Your task to perform on an android device: Go to network settings Image 0: 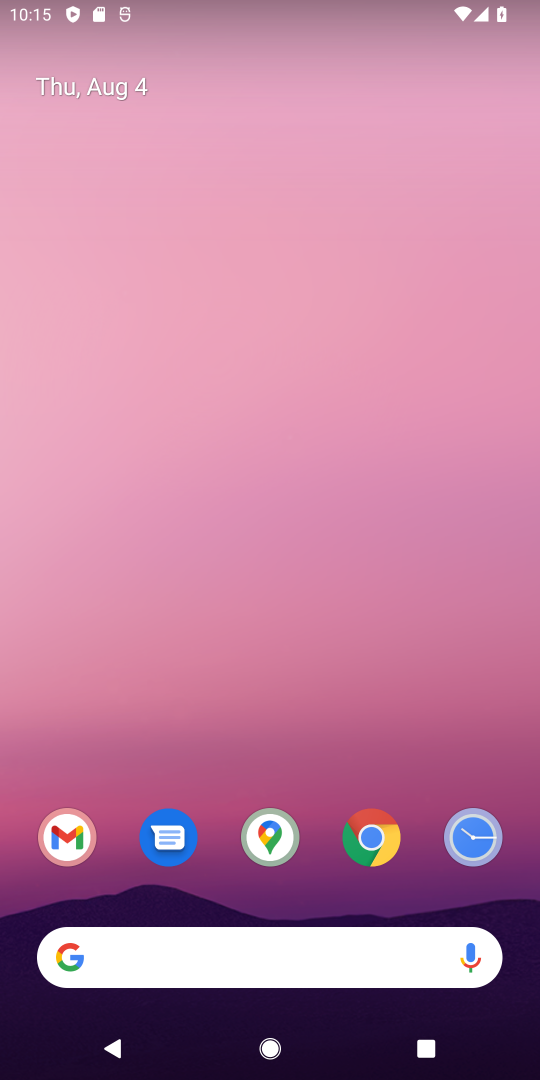
Step 0: drag from (413, 767) to (404, 172)
Your task to perform on an android device: Go to network settings Image 1: 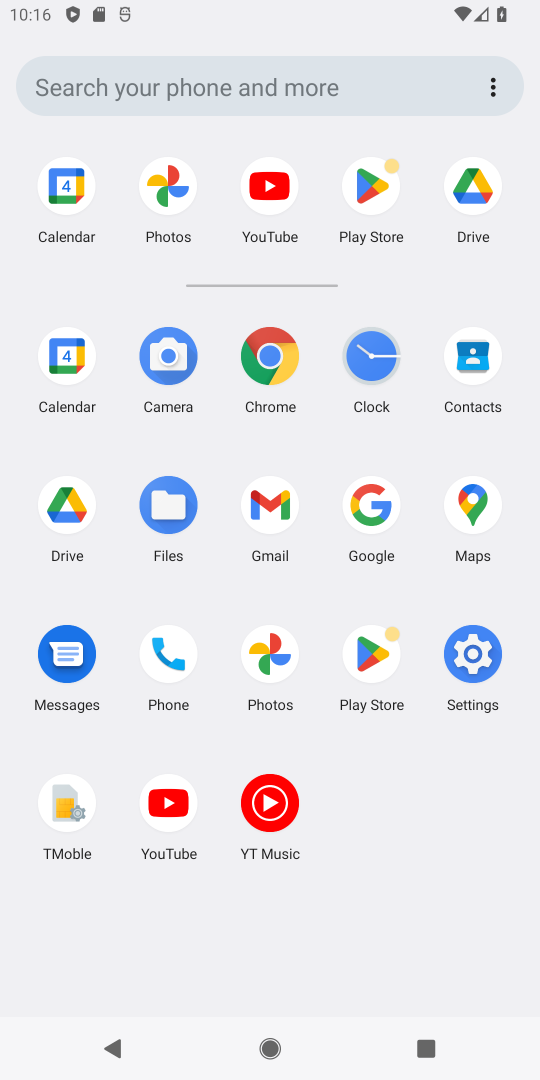
Step 1: click (468, 656)
Your task to perform on an android device: Go to network settings Image 2: 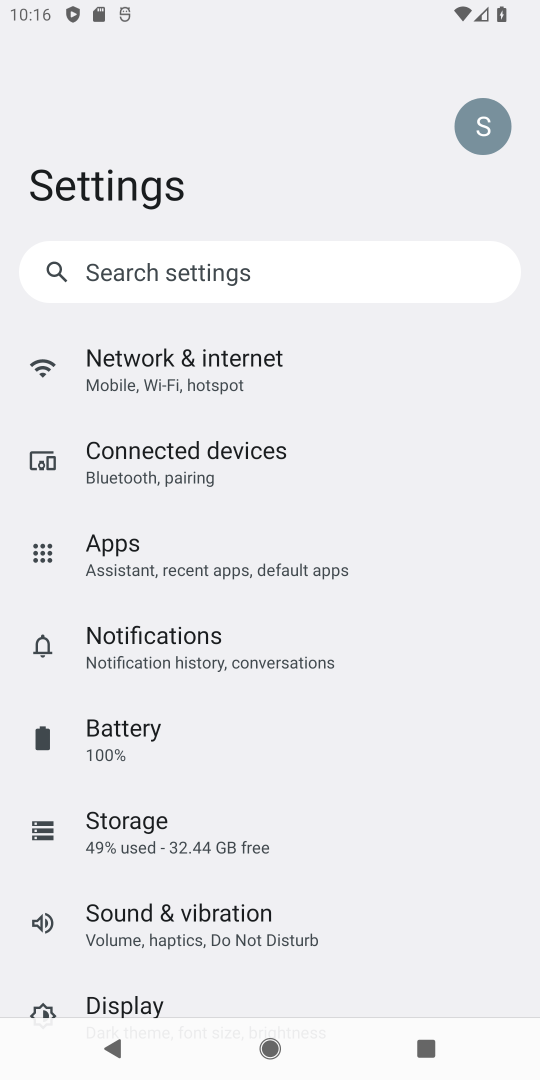
Step 2: click (160, 395)
Your task to perform on an android device: Go to network settings Image 3: 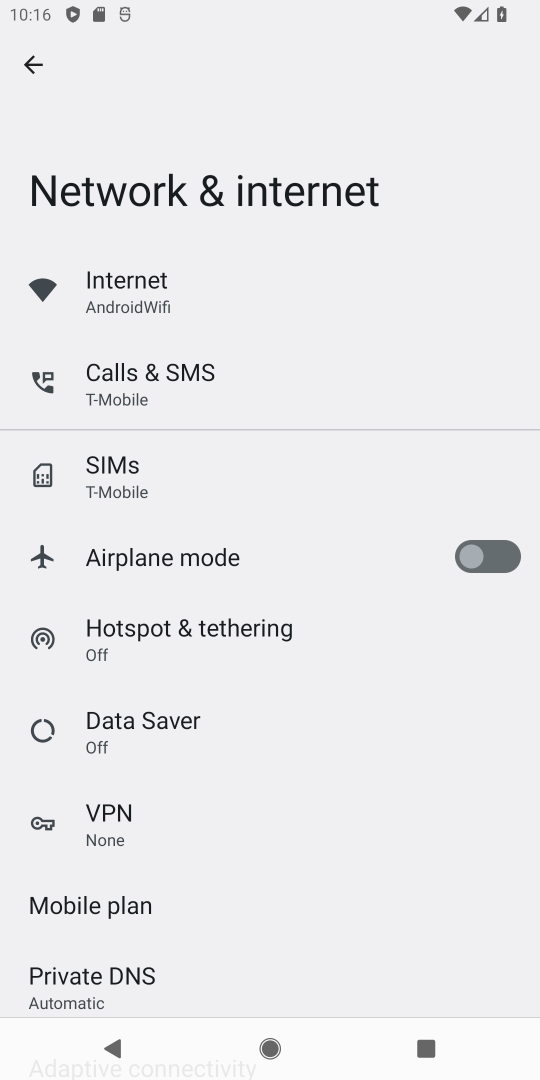
Step 3: task complete